Your task to perform on an android device: Open calendar and show me the third week of next month Image 0: 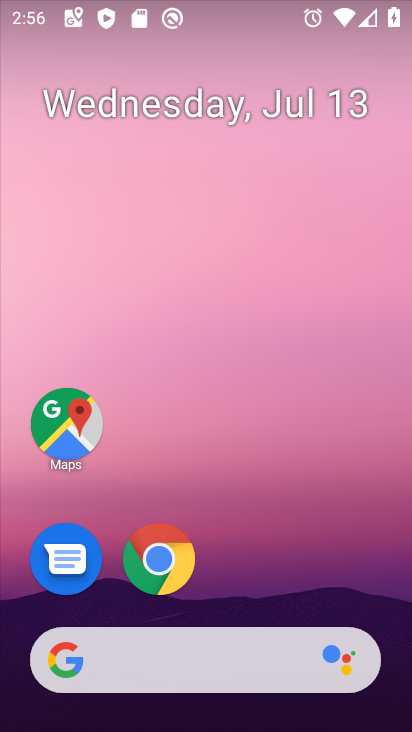
Step 0: drag from (335, 590) to (348, 163)
Your task to perform on an android device: Open calendar and show me the third week of next month Image 1: 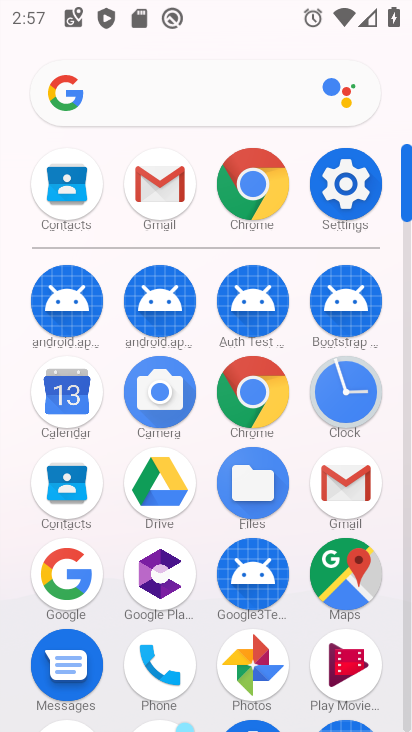
Step 1: click (83, 392)
Your task to perform on an android device: Open calendar and show me the third week of next month Image 2: 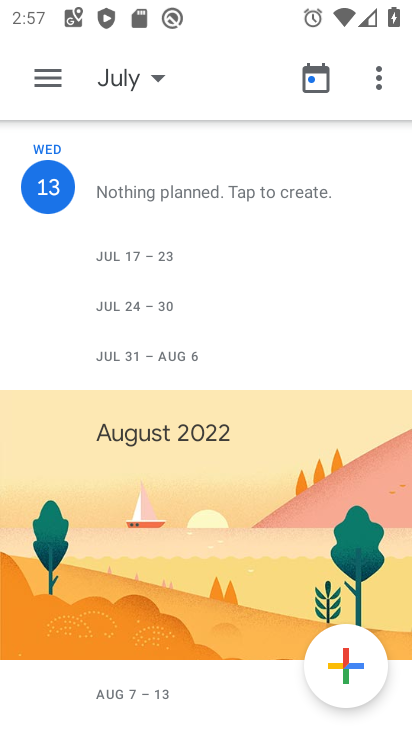
Step 2: click (162, 78)
Your task to perform on an android device: Open calendar and show me the third week of next month Image 3: 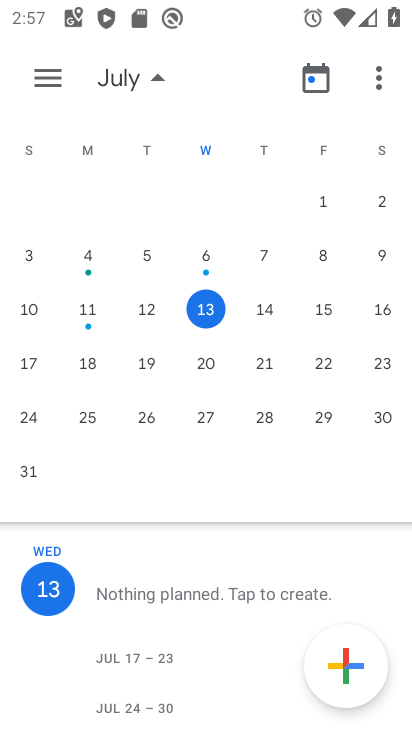
Step 3: drag from (365, 174) to (64, 189)
Your task to perform on an android device: Open calendar and show me the third week of next month Image 4: 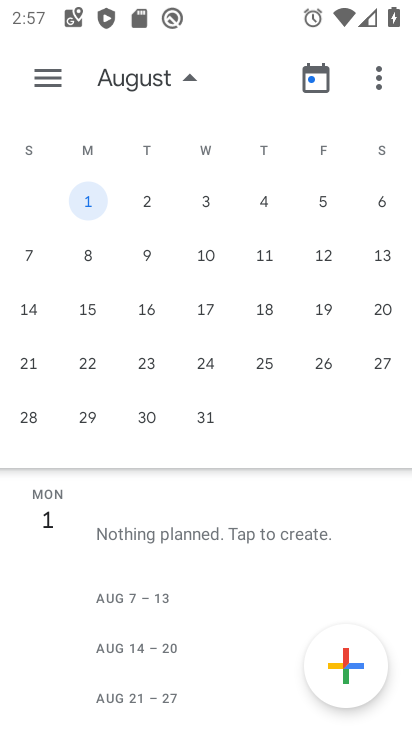
Step 4: click (85, 312)
Your task to perform on an android device: Open calendar and show me the third week of next month Image 5: 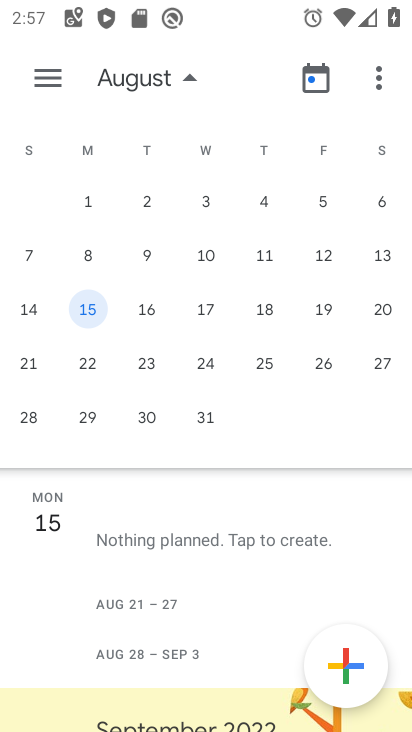
Step 5: task complete